Your task to perform on an android device: turn off picture-in-picture Image 0: 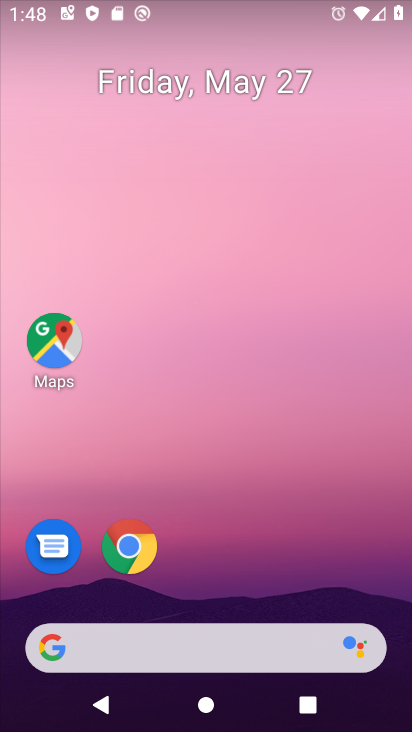
Step 0: drag from (263, 662) to (358, 165)
Your task to perform on an android device: turn off picture-in-picture Image 1: 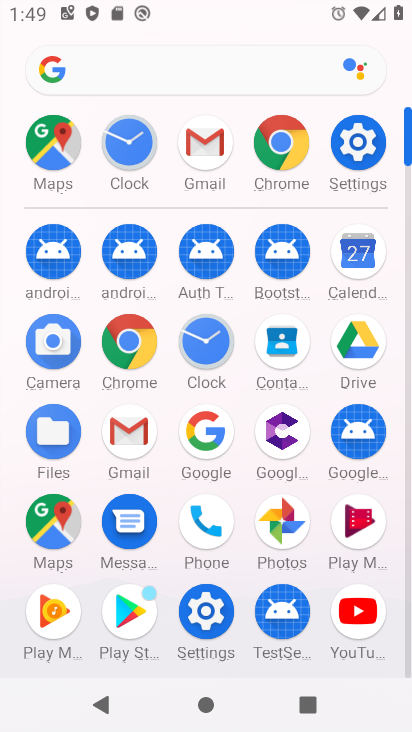
Step 1: click (351, 141)
Your task to perform on an android device: turn off picture-in-picture Image 2: 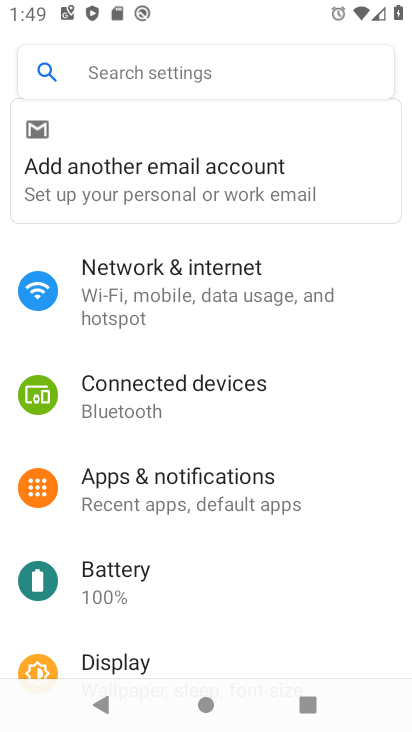
Step 2: click (197, 66)
Your task to perform on an android device: turn off picture-in-picture Image 3: 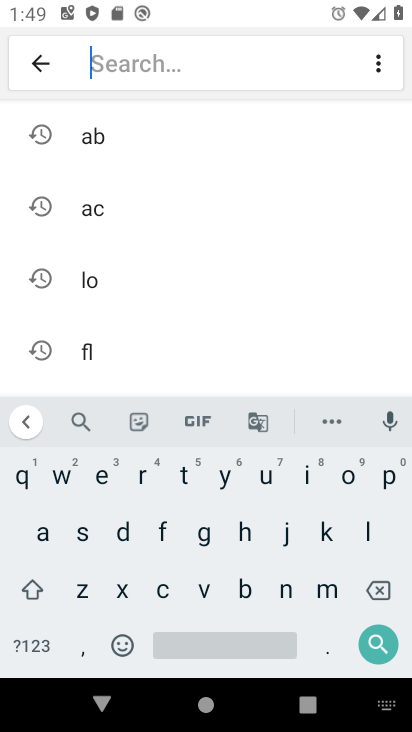
Step 3: click (394, 482)
Your task to perform on an android device: turn off picture-in-picture Image 4: 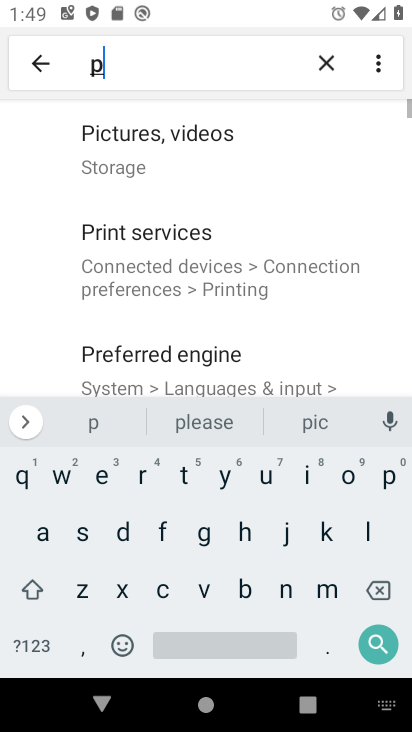
Step 4: click (306, 477)
Your task to perform on an android device: turn off picture-in-picture Image 5: 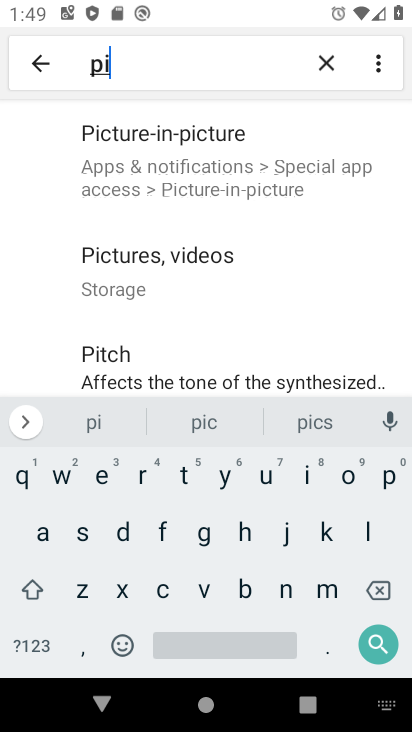
Step 5: click (213, 145)
Your task to perform on an android device: turn off picture-in-picture Image 6: 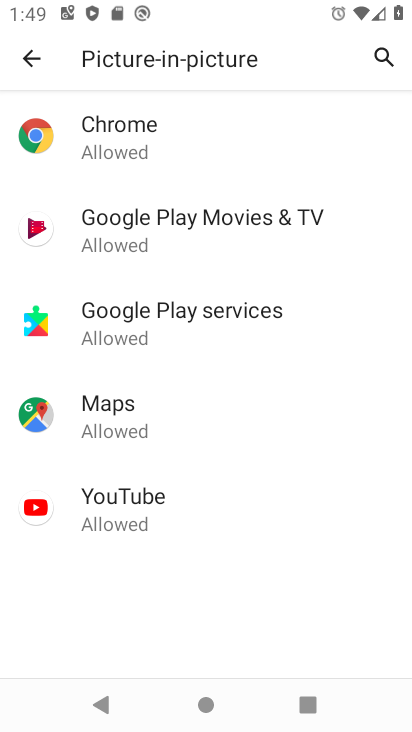
Step 6: task complete